Your task to perform on an android device: move an email to a new category in the gmail app Image 0: 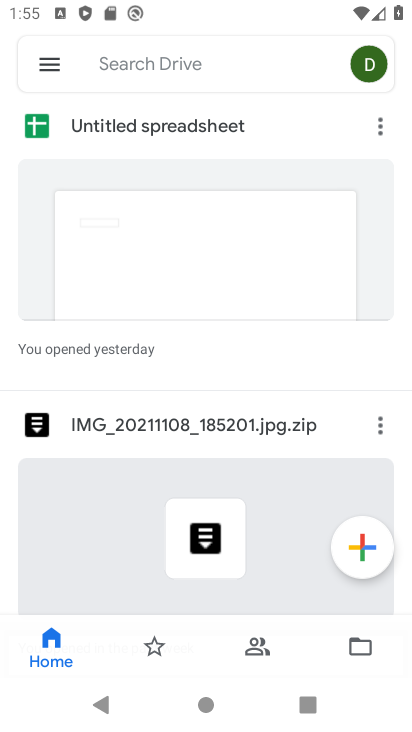
Step 0: task complete